Your task to perform on an android device: Open Google Image 0: 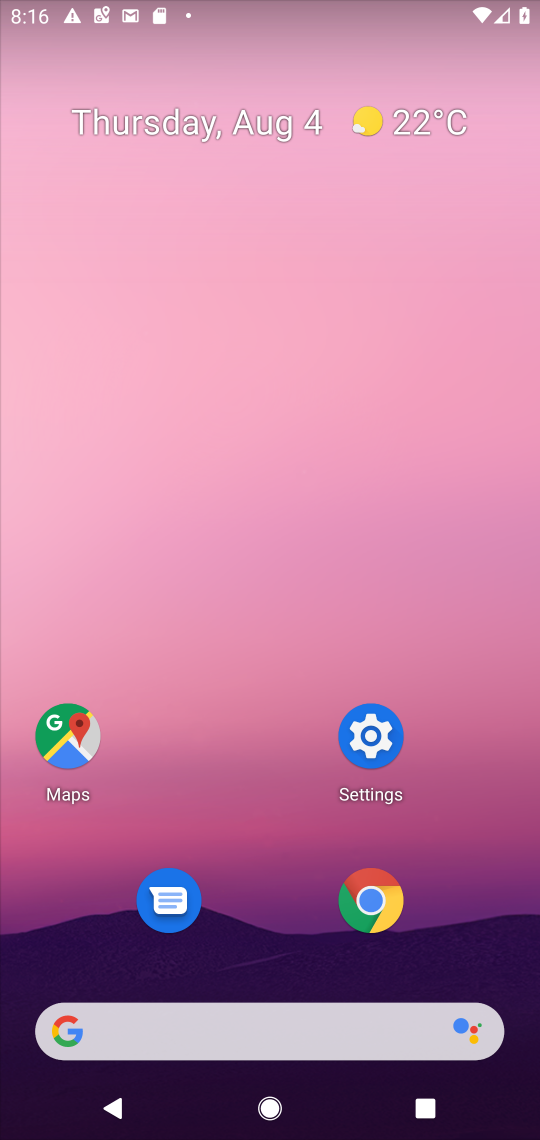
Step 0: press home button
Your task to perform on an android device: Open Google Image 1: 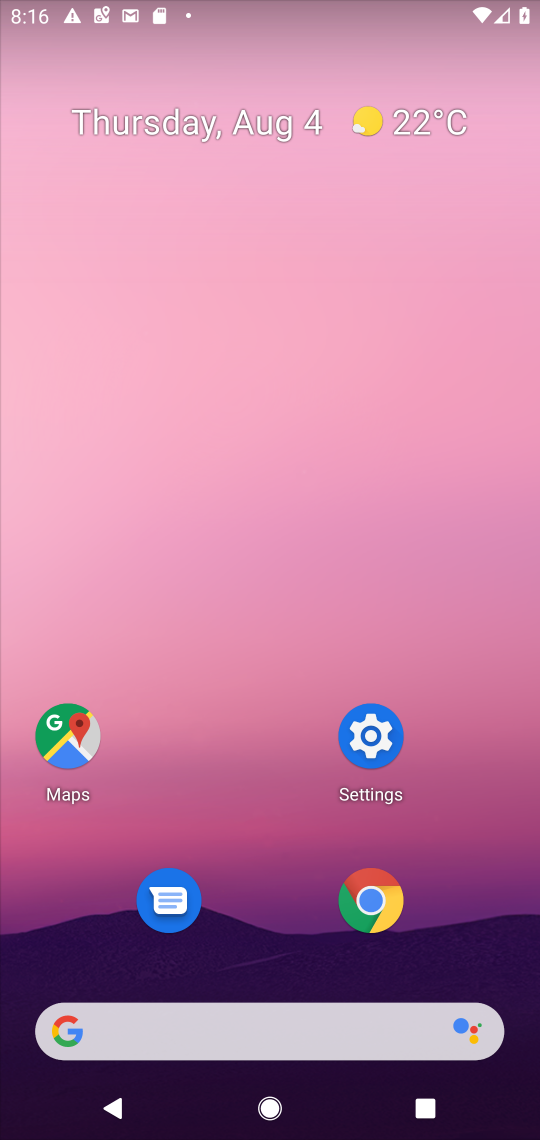
Step 1: drag from (255, 1012) to (336, 277)
Your task to perform on an android device: Open Google Image 2: 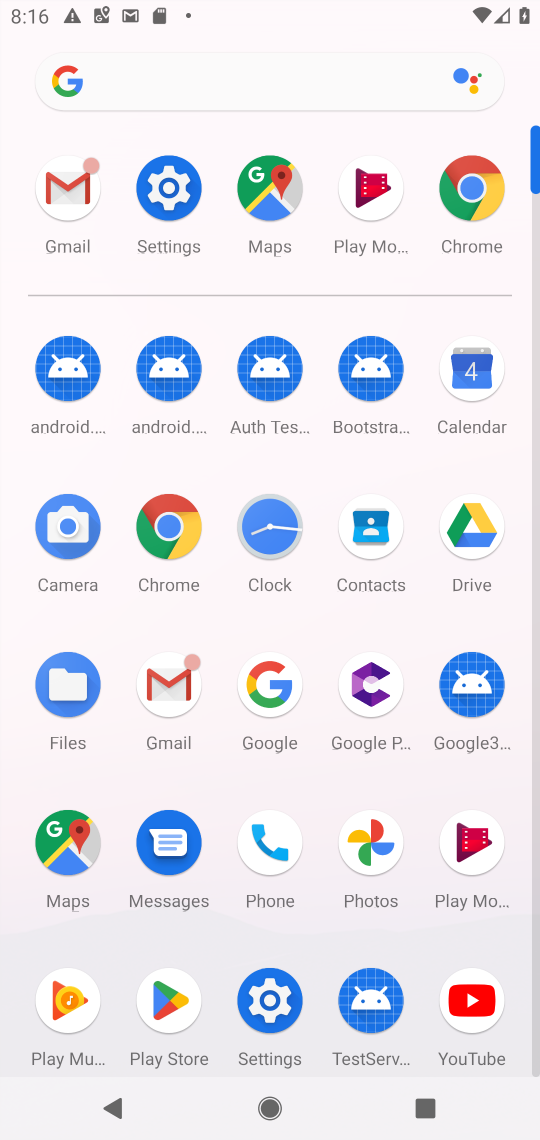
Step 2: click (271, 695)
Your task to perform on an android device: Open Google Image 3: 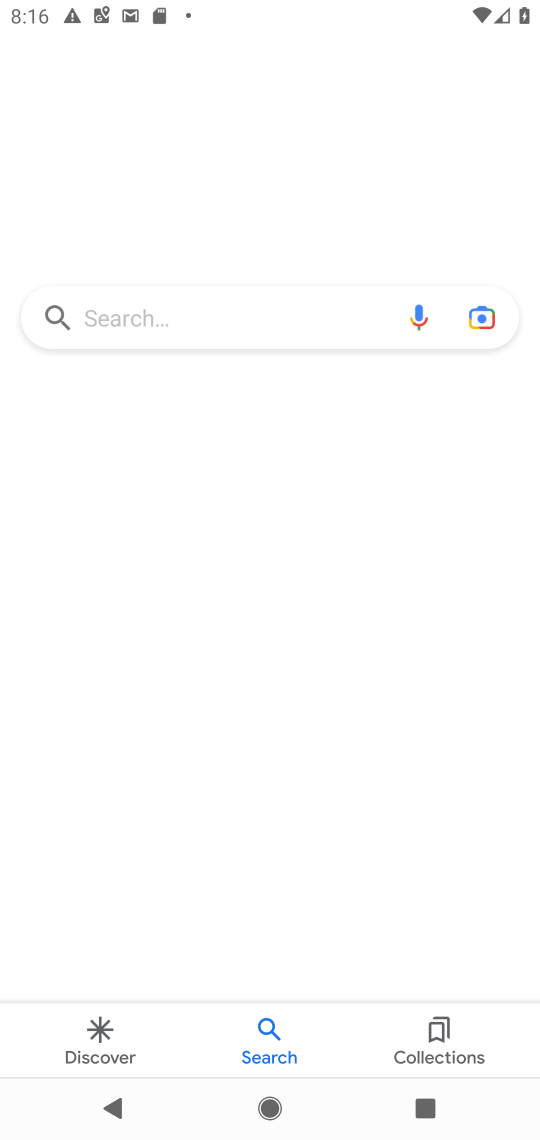
Step 3: task complete